Your task to perform on an android device: set an alarm Image 0: 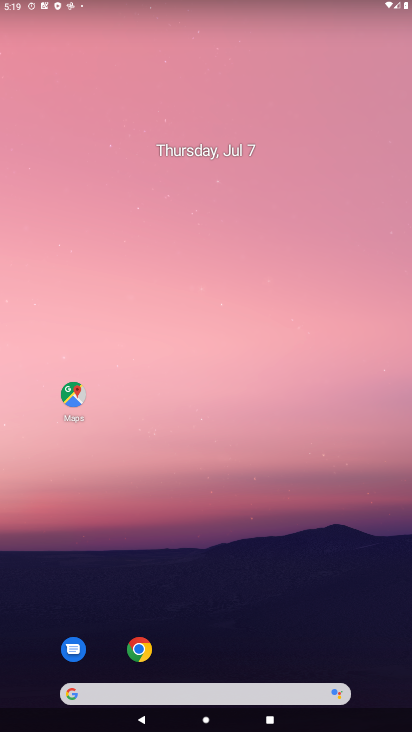
Step 0: drag from (326, 686) to (212, 211)
Your task to perform on an android device: set an alarm Image 1: 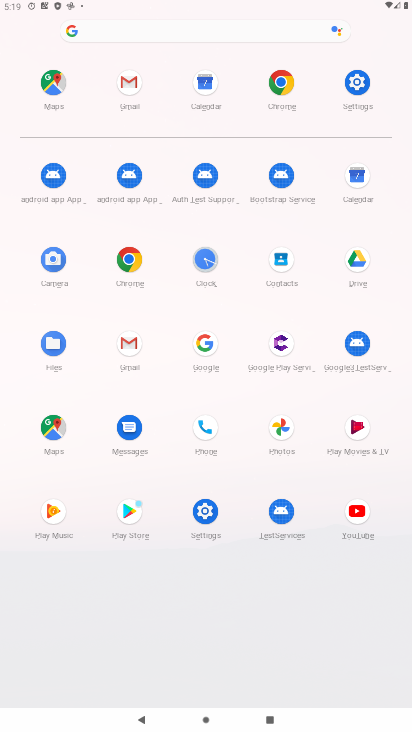
Step 1: click (198, 263)
Your task to perform on an android device: set an alarm Image 2: 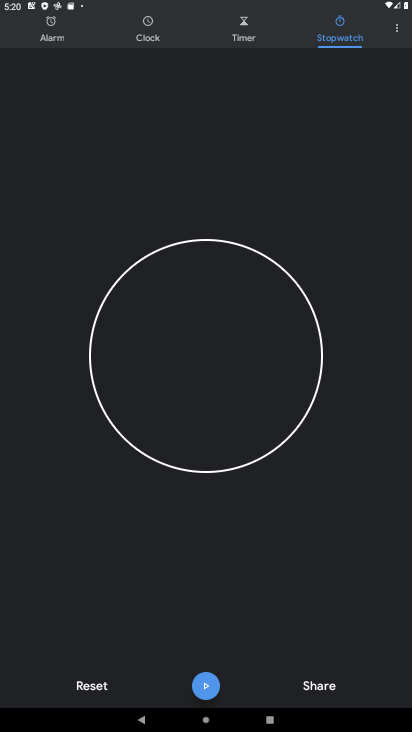
Step 2: click (54, 29)
Your task to perform on an android device: set an alarm Image 3: 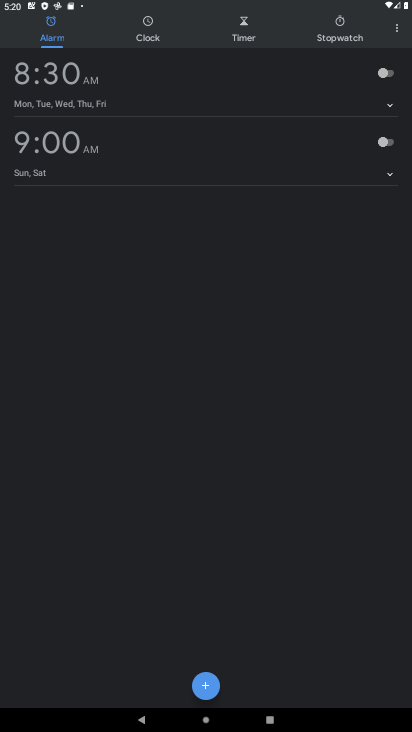
Step 3: click (376, 82)
Your task to perform on an android device: set an alarm Image 4: 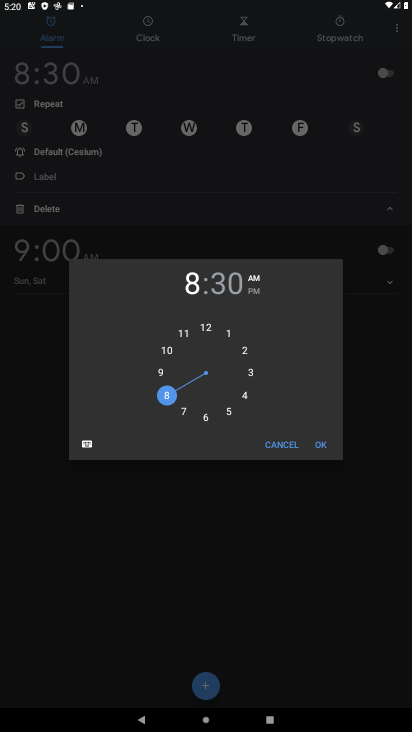
Step 4: task complete